Your task to perform on an android device: turn smart compose on in the gmail app Image 0: 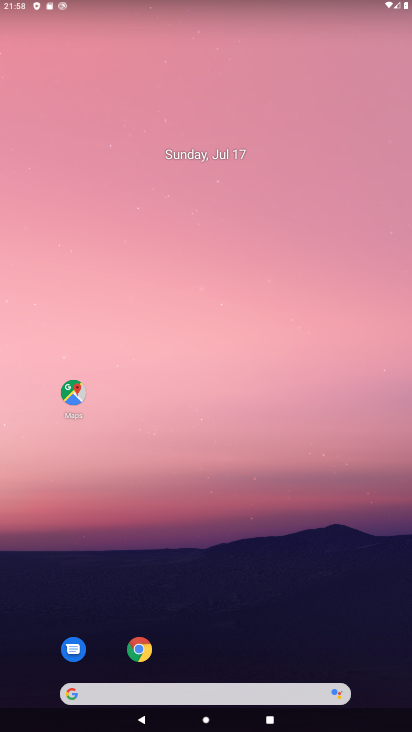
Step 0: drag from (171, 328) to (216, 110)
Your task to perform on an android device: turn smart compose on in the gmail app Image 1: 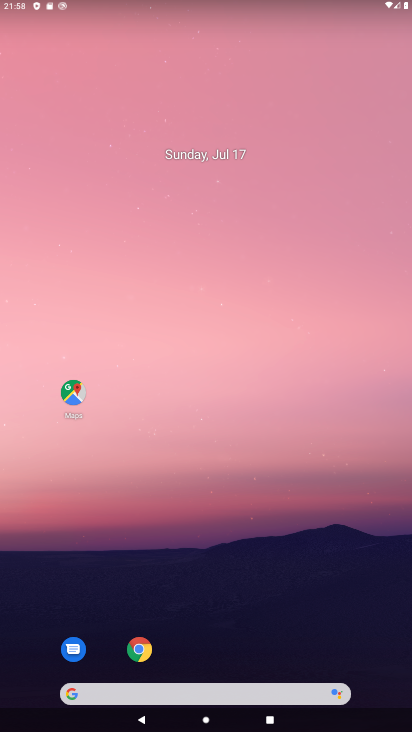
Step 1: drag from (32, 659) to (185, 239)
Your task to perform on an android device: turn smart compose on in the gmail app Image 2: 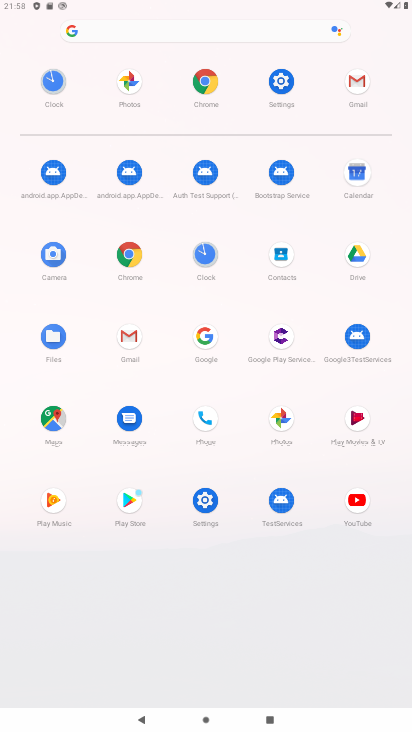
Step 2: click (137, 343)
Your task to perform on an android device: turn smart compose on in the gmail app Image 3: 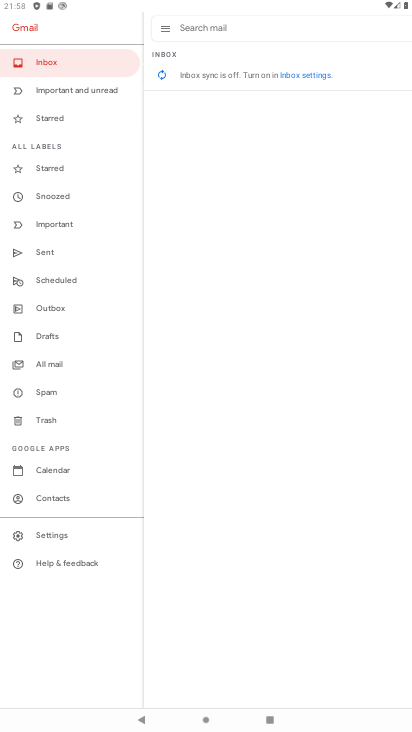
Step 3: click (87, 544)
Your task to perform on an android device: turn smart compose on in the gmail app Image 4: 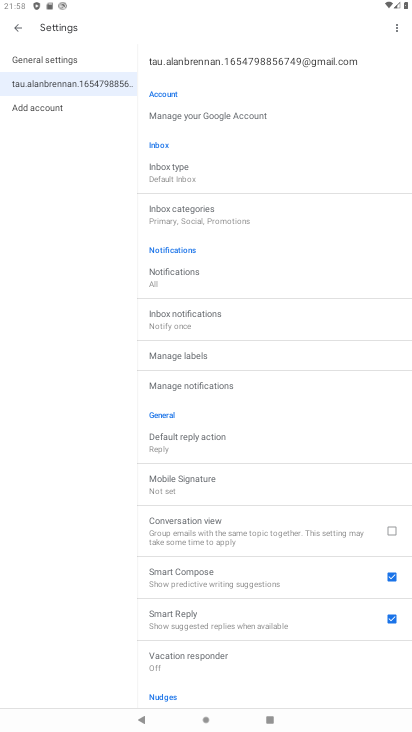
Step 4: task complete